Your task to perform on an android device: turn on translation in the chrome app Image 0: 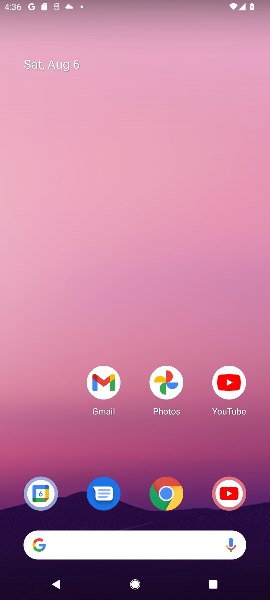
Step 0: drag from (178, 513) to (180, 180)
Your task to perform on an android device: turn on translation in the chrome app Image 1: 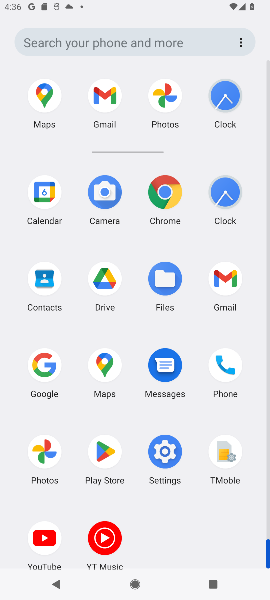
Step 1: click (166, 191)
Your task to perform on an android device: turn on translation in the chrome app Image 2: 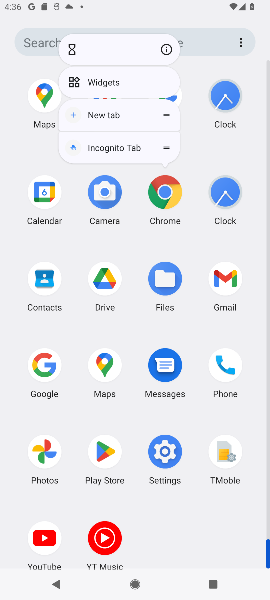
Step 2: click (166, 191)
Your task to perform on an android device: turn on translation in the chrome app Image 3: 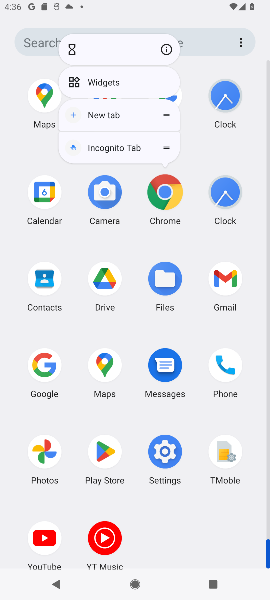
Step 3: click (166, 191)
Your task to perform on an android device: turn on translation in the chrome app Image 4: 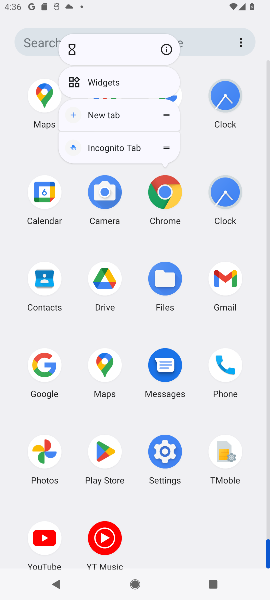
Step 4: click (166, 191)
Your task to perform on an android device: turn on translation in the chrome app Image 5: 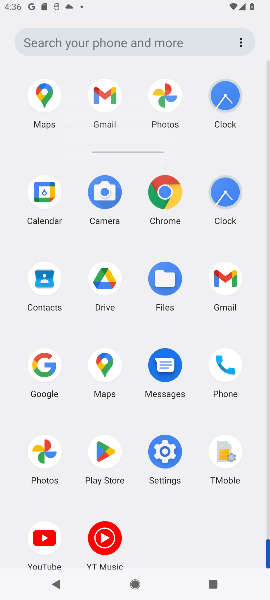
Step 5: click (166, 191)
Your task to perform on an android device: turn on translation in the chrome app Image 6: 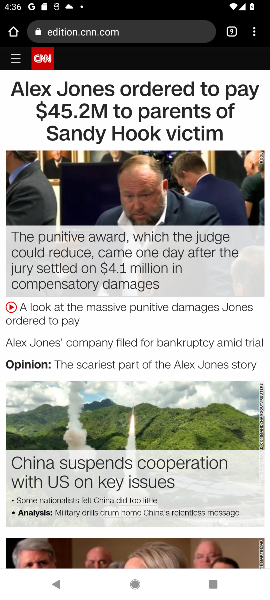
Step 6: drag from (253, 37) to (165, 407)
Your task to perform on an android device: turn on translation in the chrome app Image 7: 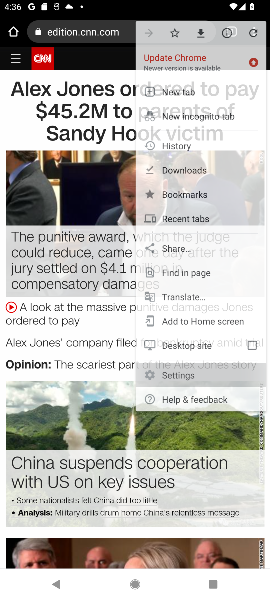
Step 7: click (165, 407)
Your task to perform on an android device: turn on translation in the chrome app Image 8: 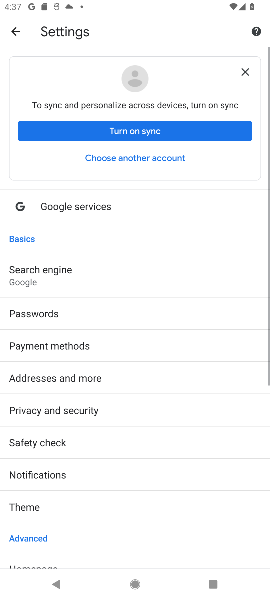
Step 8: drag from (88, 455) to (91, 273)
Your task to perform on an android device: turn on translation in the chrome app Image 9: 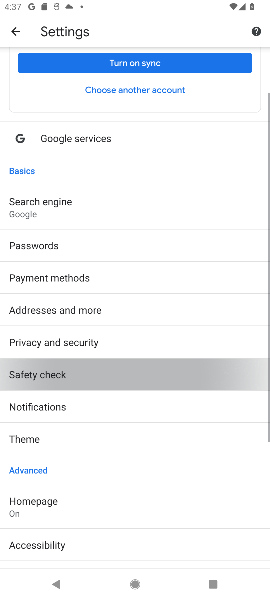
Step 9: drag from (106, 383) to (106, 213)
Your task to perform on an android device: turn on translation in the chrome app Image 10: 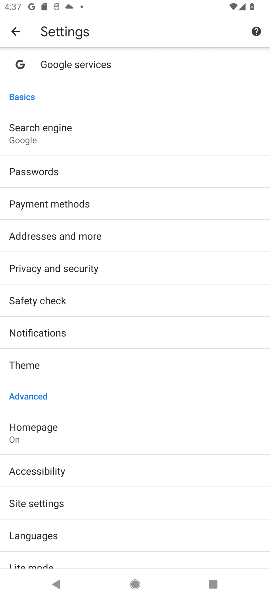
Step 10: click (66, 538)
Your task to perform on an android device: turn on translation in the chrome app Image 11: 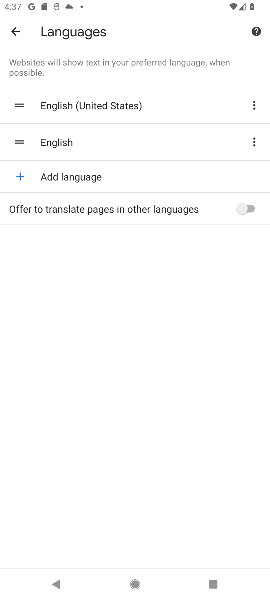
Step 11: click (237, 214)
Your task to perform on an android device: turn on translation in the chrome app Image 12: 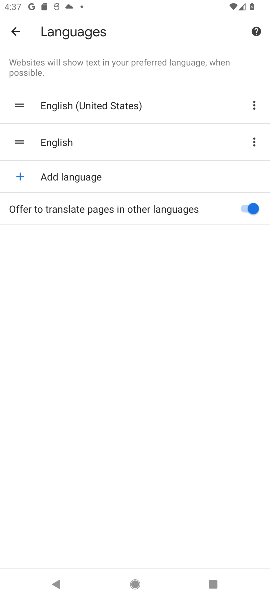
Step 12: task complete